Your task to perform on an android device: Go to Wikipedia Image 0: 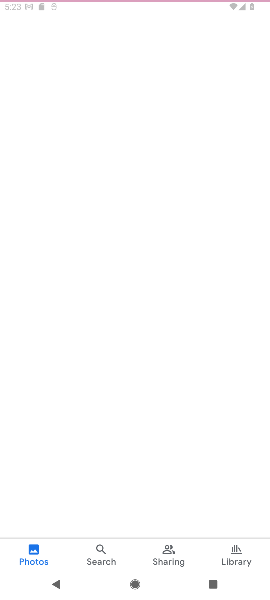
Step 0: press home button
Your task to perform on an android device: Go to Wikipedia Image 1: 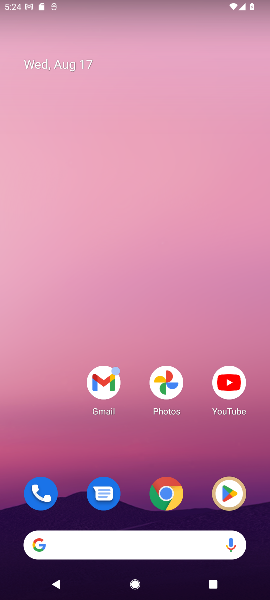
Step 1: drag from (137, 495) to (101, 141)
Your task to perform on an android device: Go to Wikipedia Image 2: 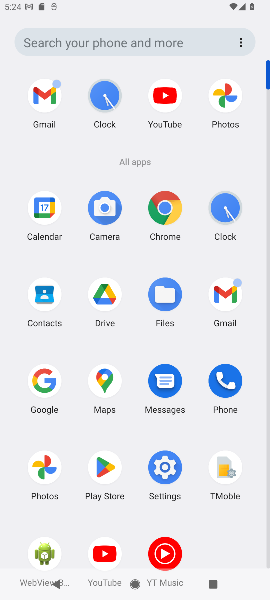
Step 2: click (48, 381)
Your task to perform on an android device: Go to Wikipedia Image 3: 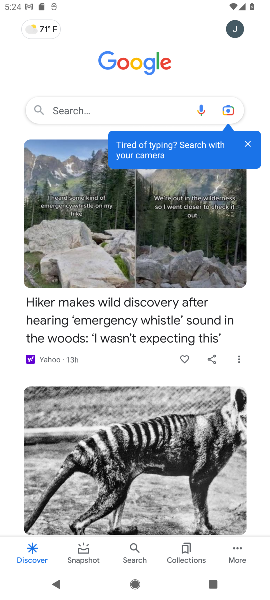
Step 3: click (77, 100)
Your task to perform on an android device: Go to Wikipedia Image 4: 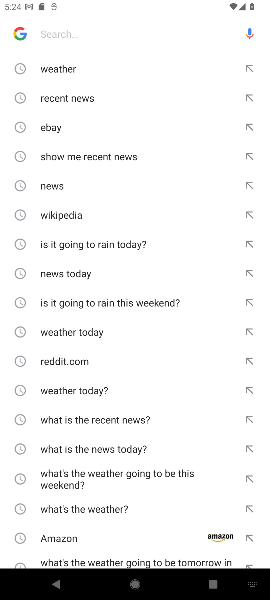
Step 4: type "Wikipedia"
Your task to perform on an android device: Go to Wikipedia Image 5: 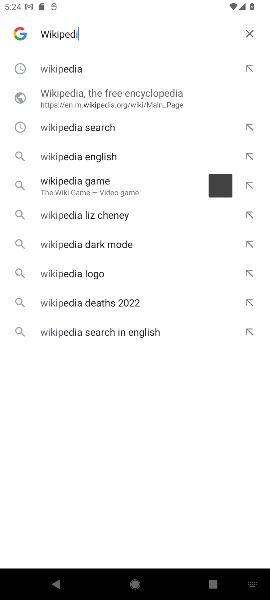
Step 5: press enter
Your task to perform on an android device: Go to Wikipedia Image 6: 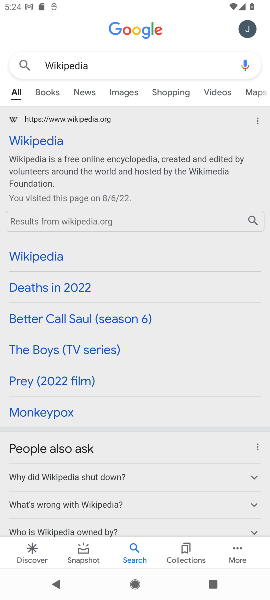
Step 6: click (26, 148)
Your task to perform on an android device: Go to Wikipedia Image 7: 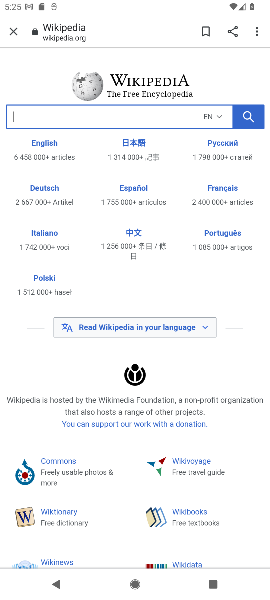
Step 7: task complete